Your task to perform on an android device: turn on translation in the chrome app Image 0: 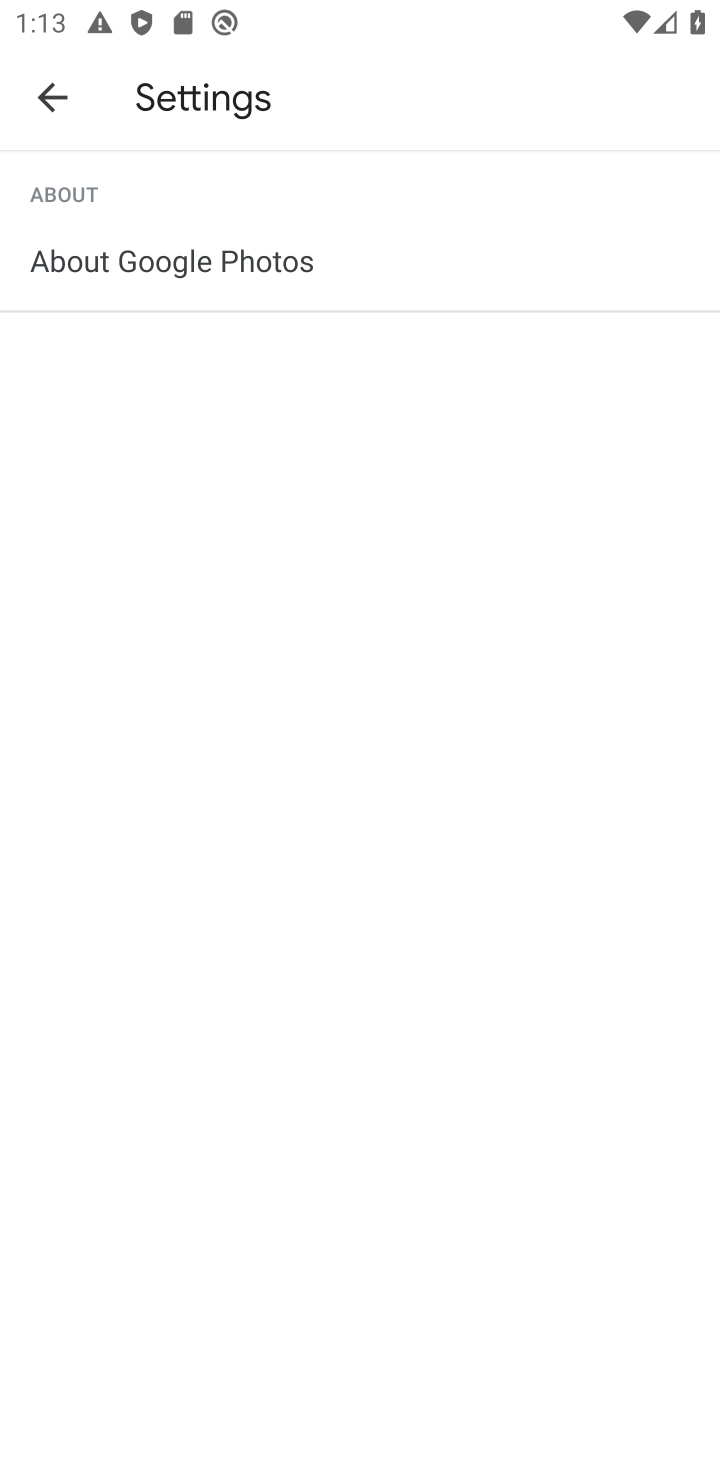
Step 0: press home button
Your task to perform on an android device: turn on translation in the chrome app Image 1: 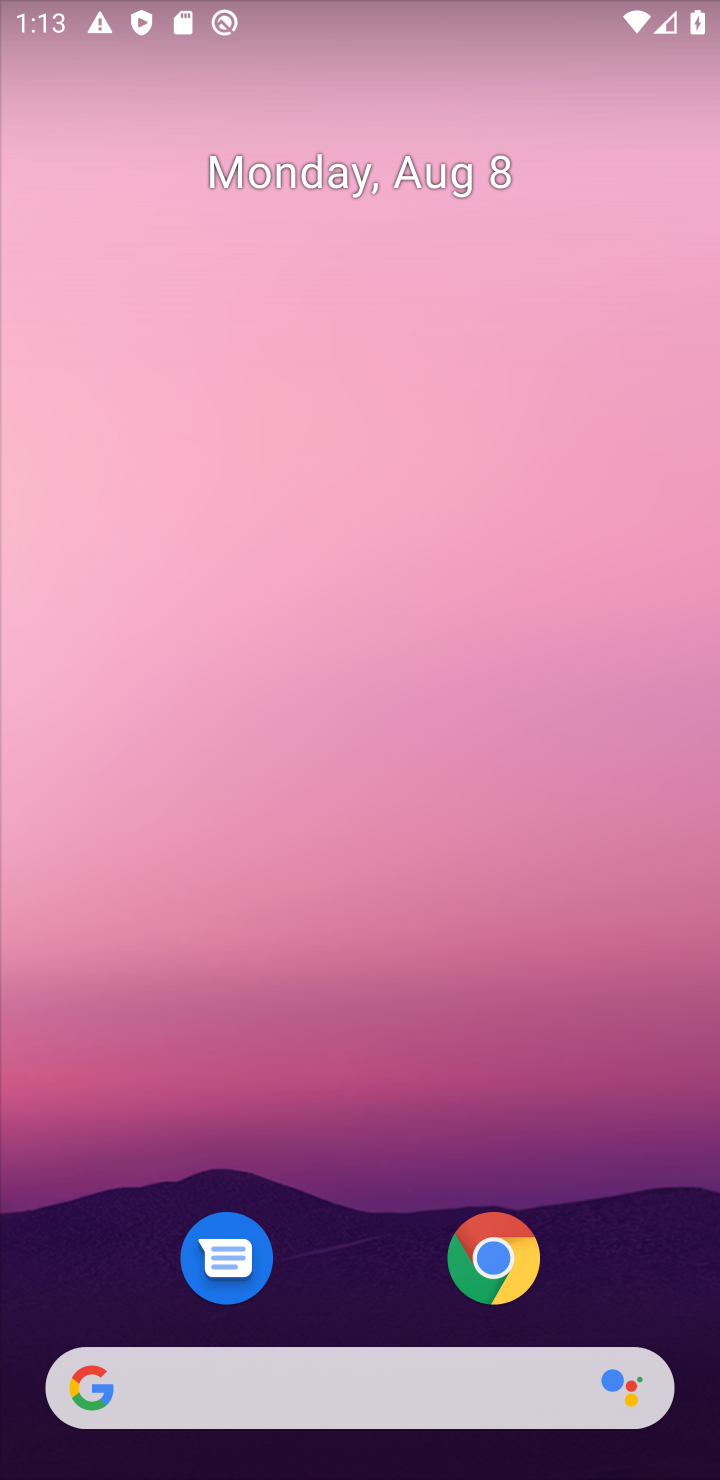
Step 1: drag from (404, 1223) to (579, 65)
Your task to perform on an android device: turn on translation in the chrome app Image 2: 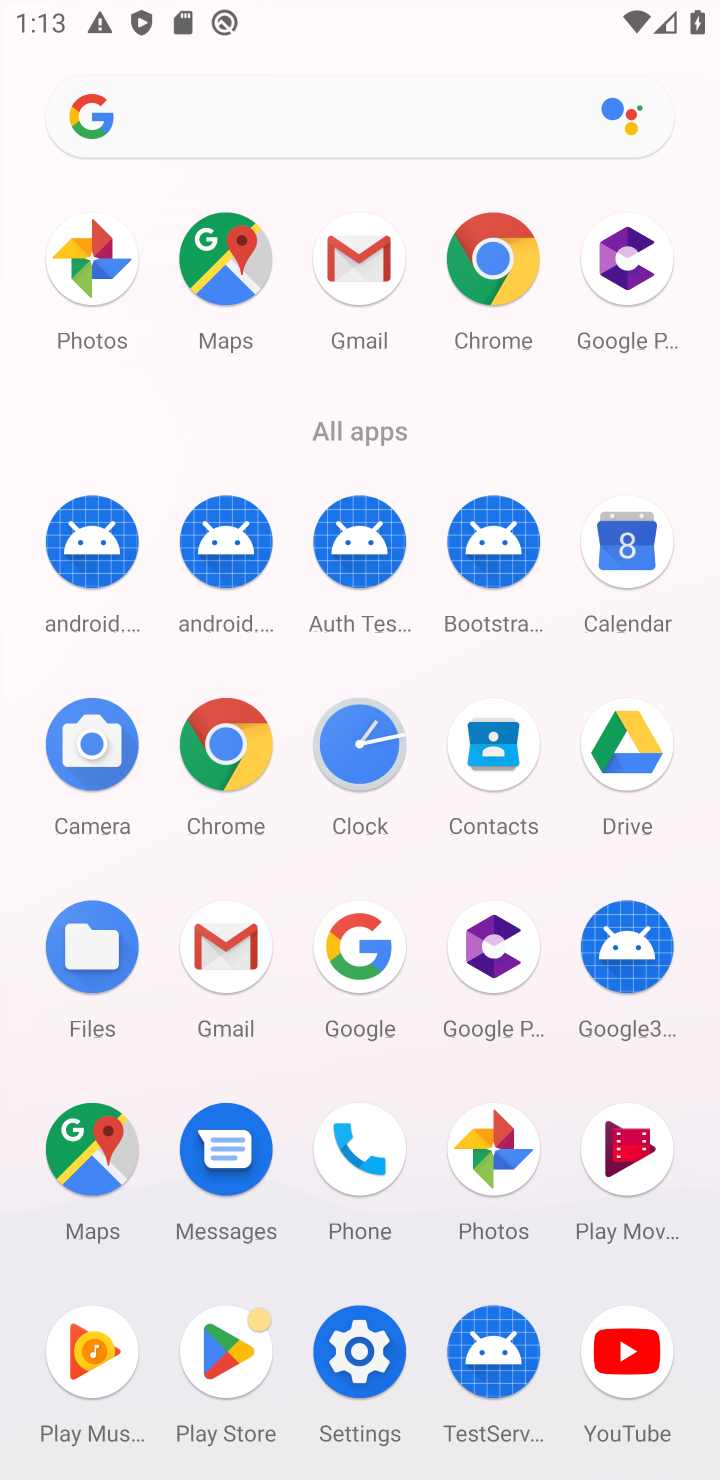
Step 2: click (240, 781)
Your task to perform on an android device: turn on translation in the chrome app Image 3: 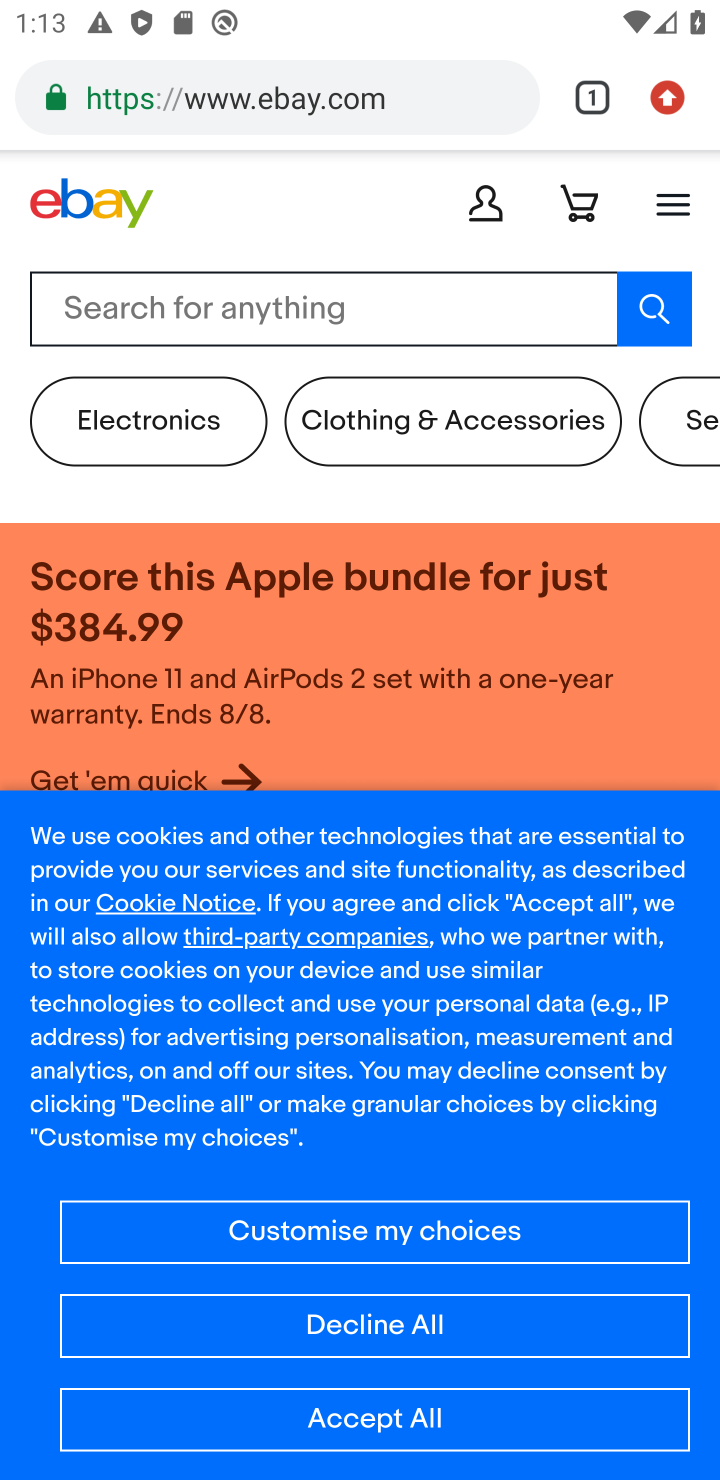
Step 3: click (663, 98)
Your task to perform on an android device: turn on translation in the chrome app Image 4: 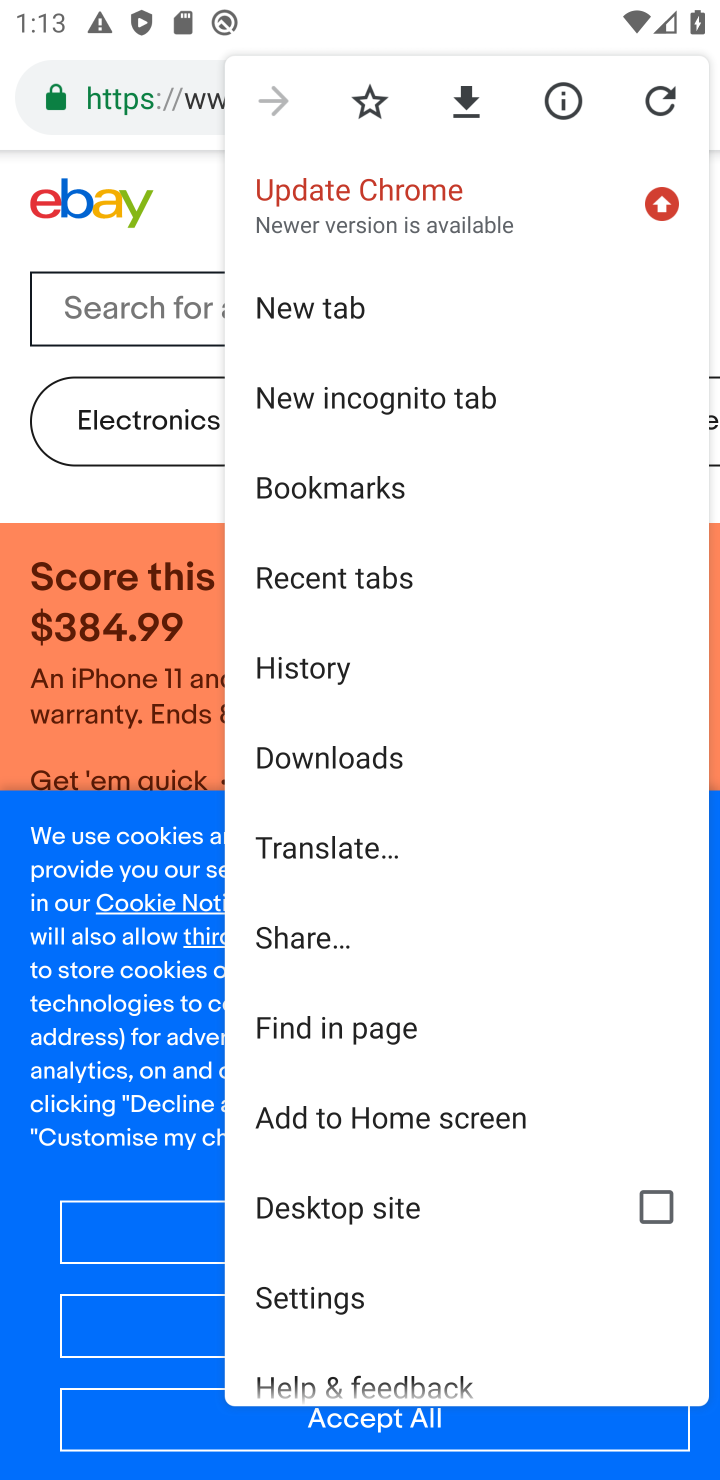
Step 4: click (373, 835)
Your task to perform on an android device: turn on translation in the chrome app Image 5: 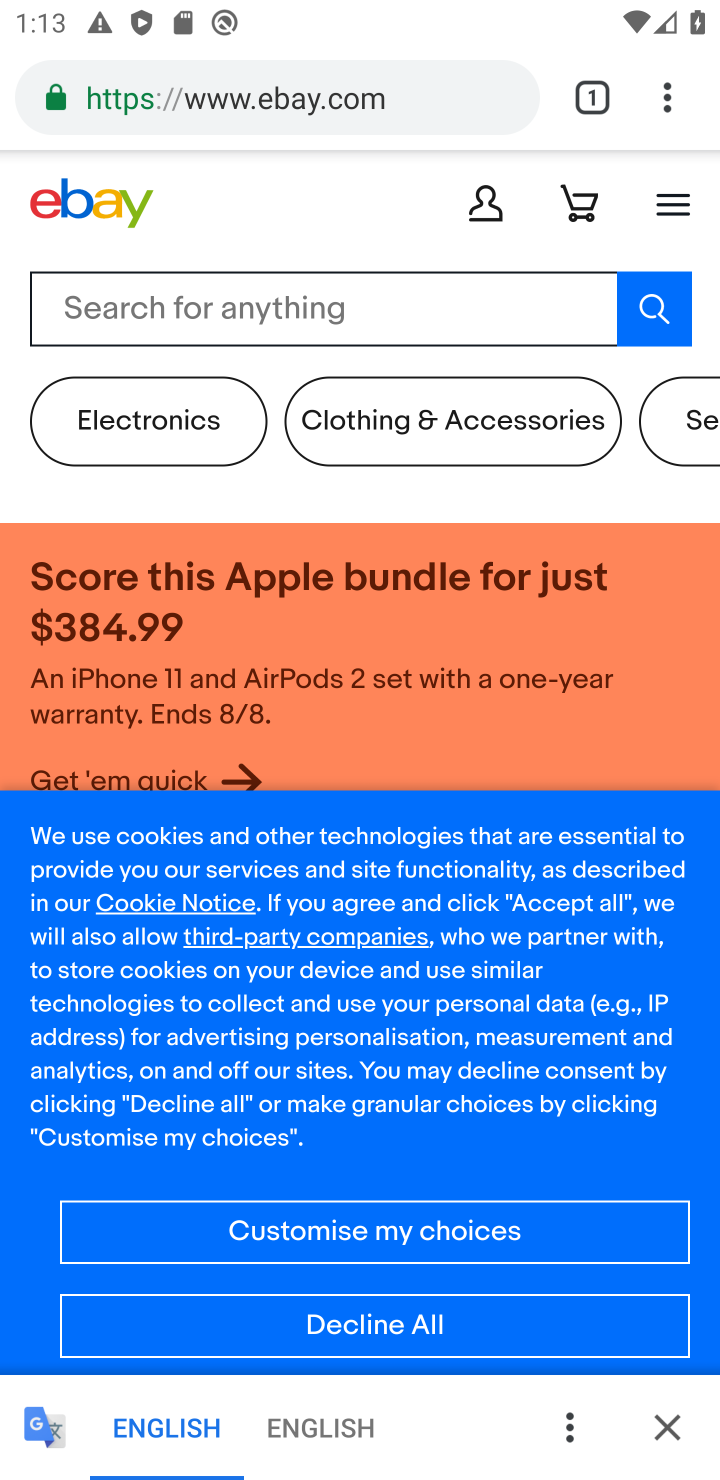
Step 5: click (576, 1424)
Your task to perform on an android device: turn on translation in the chrome app Image 6: 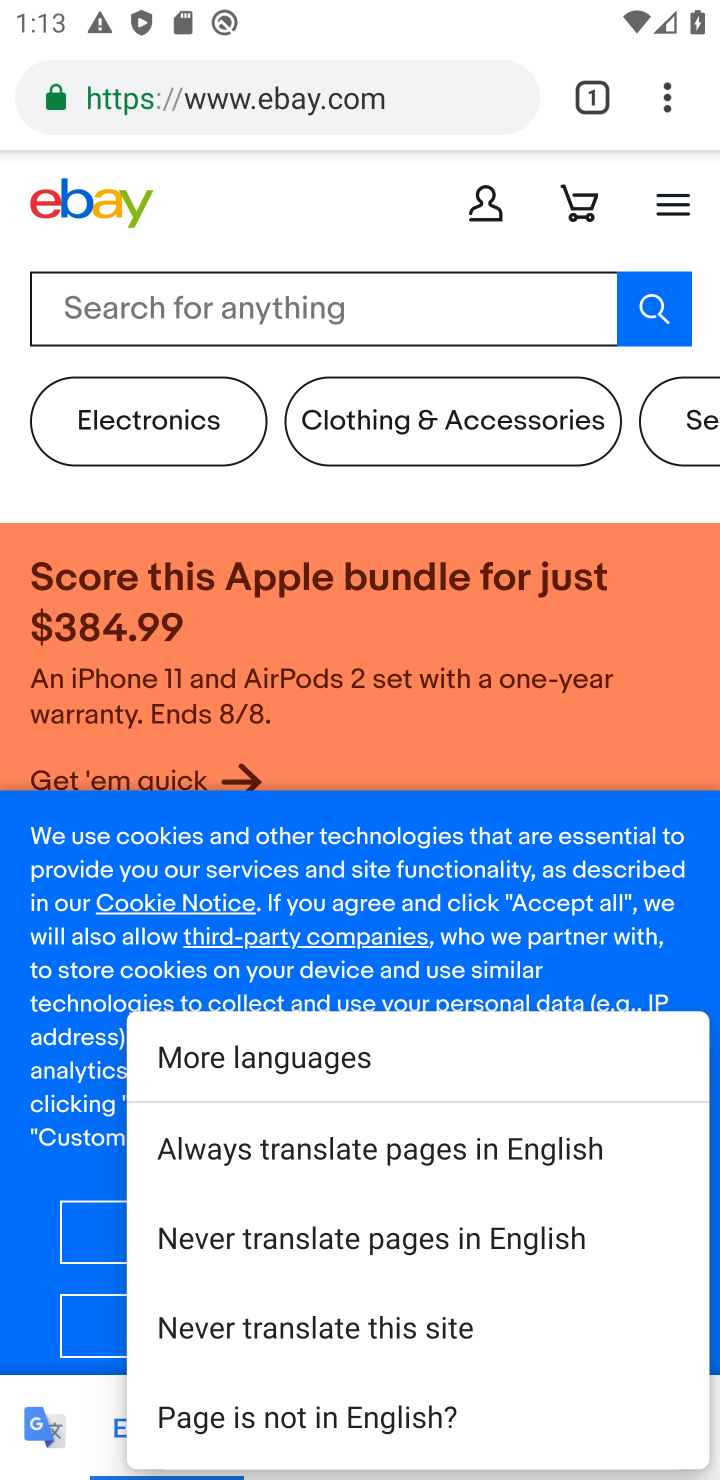
Step 6: click (467, 1160)
Your task to perform on an android device: turn on translation in the chrome app Image 7: 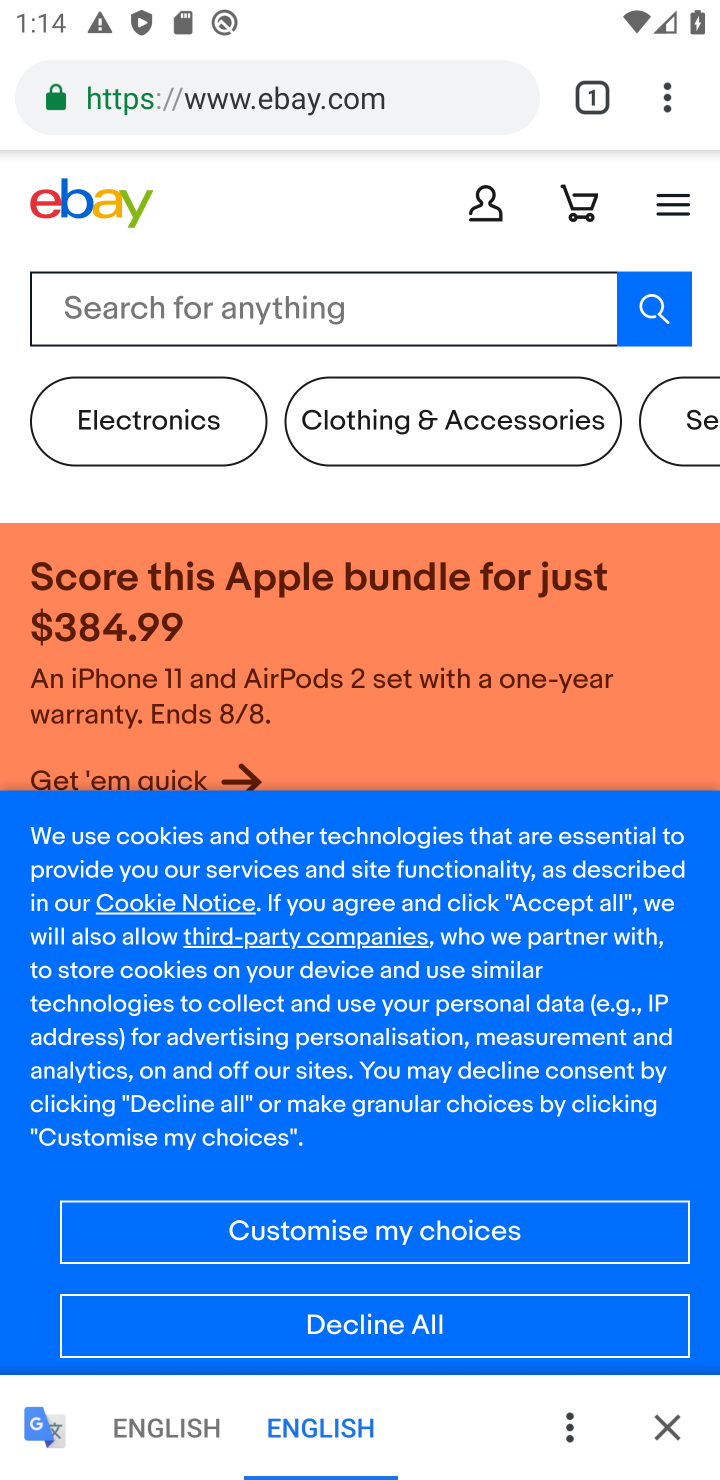
Step 7: task complete